Your task to perform on an android device: turn off location Image 0: 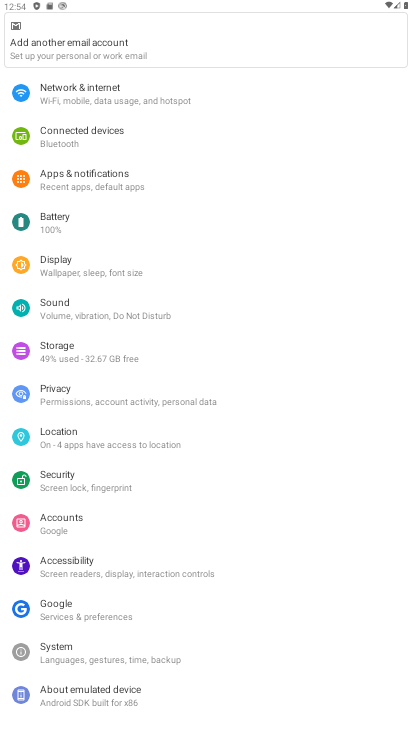
Step 0: click (59, 435)
Your task to perform on an android device: turn off location Image 1: 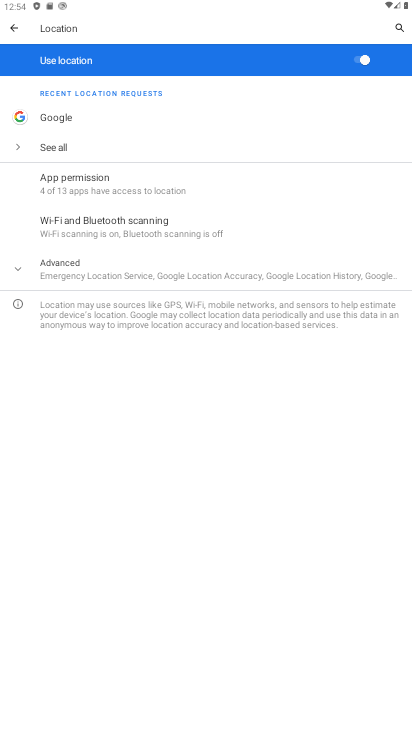
Step 1: click (363, 65)
Your task to perform on an android device: turn off location Image 2: 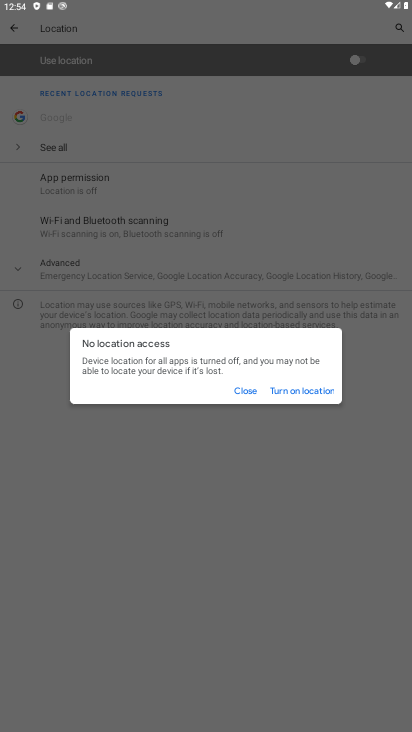
Step 2: click (248, 390)
Your task to perform on an android device: turn off location Image 3: 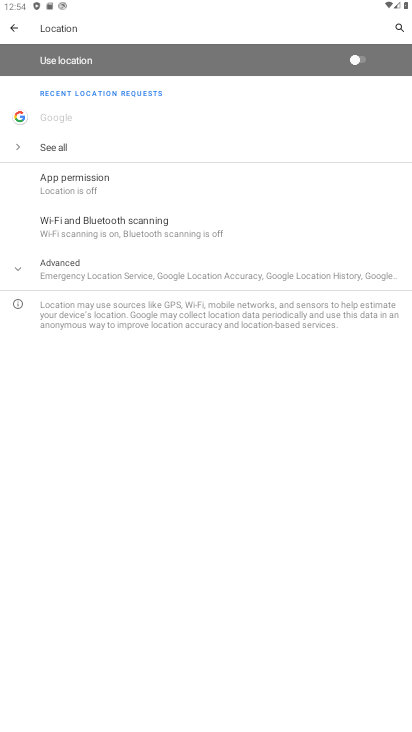
Step 3: task complete